Your task to perform on an android device: empty trash in google photos Image 0: 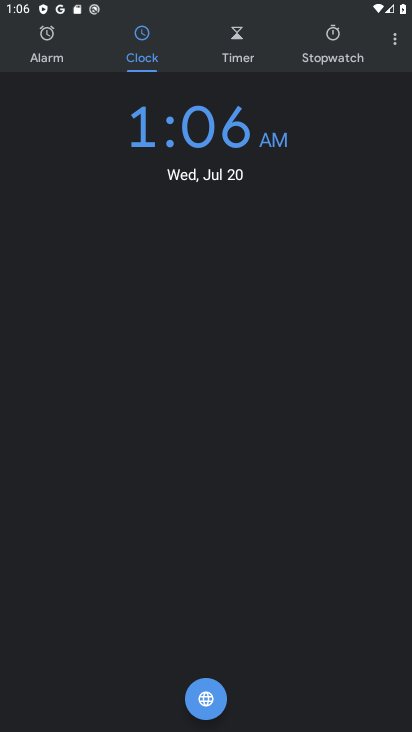
Step 0: press home button
Your task to perform on an android device: empty trash in google photos Image 1: 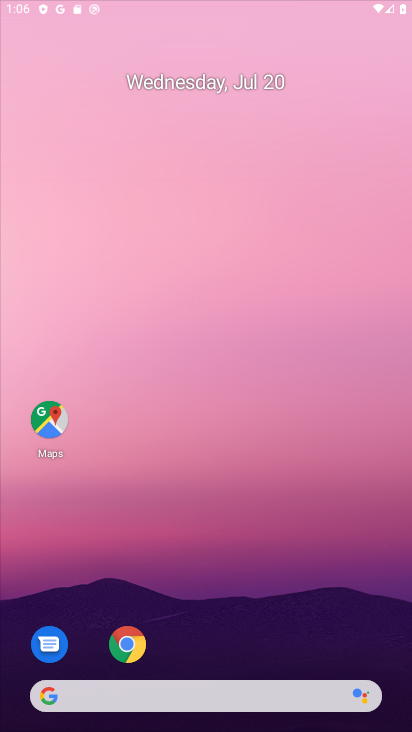
Step 1: drag from (214, 571) to (243, 2)
Your task to perform on an android device: empty trash in google photos Image 2: 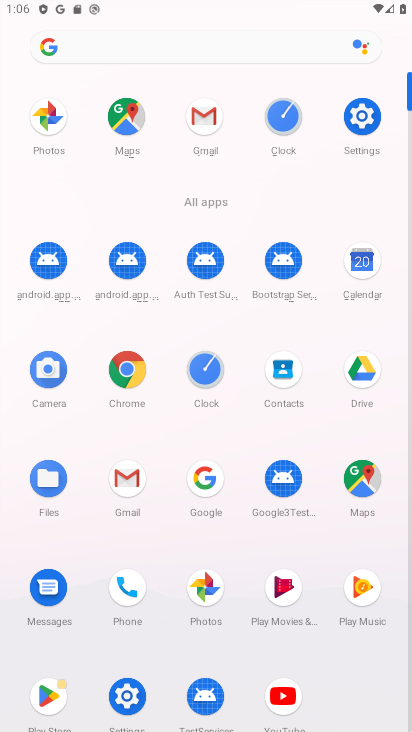
Step 2: click (206, 588)
Your task to perform on an android device: empty trash in google photos Image 3: 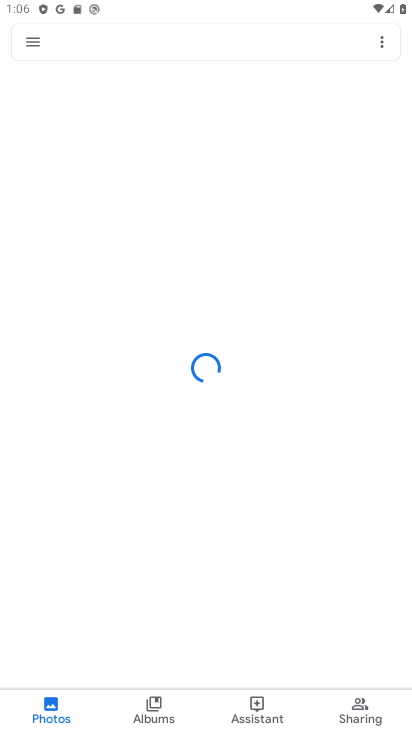
Step 3: click (22, 41)
Your task to perform on an android device: empty trash in google photos Image 4: 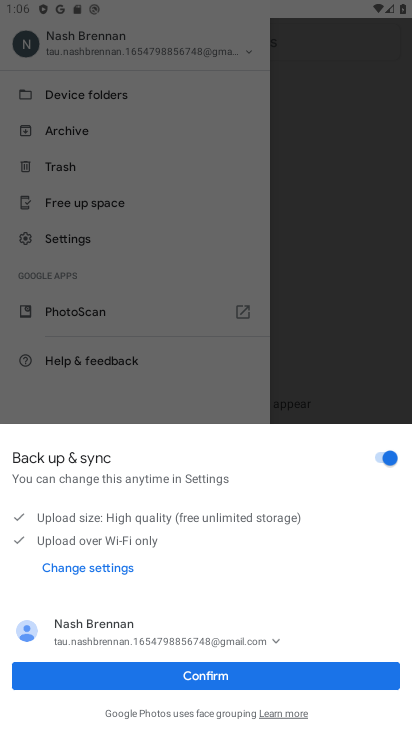
Step 4: click (363, 303)
Your task to perform on an android device: empty trash in google photos Image 5: 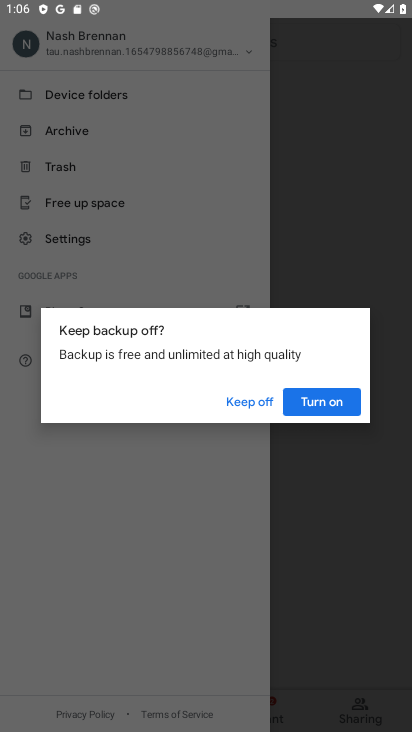
Step 5: click (316, 407)
Your task to perform on an android device: empty trash in google photos Image 6: 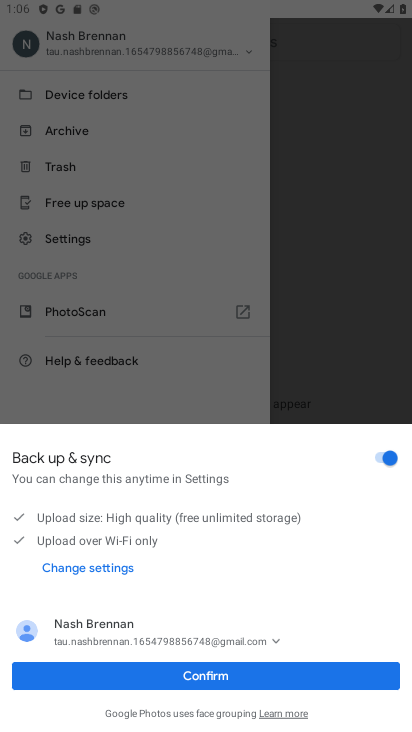
Step 6: click (74, 164)
Your task to perform on an android device: empty trash in google photos Image 7: 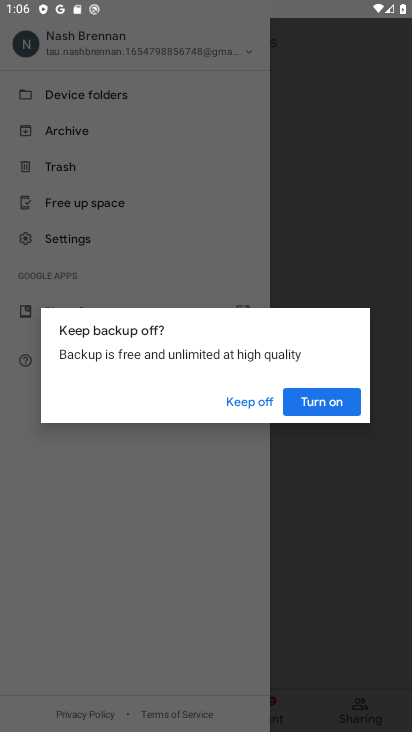
Step 7: click (317, 402)
Your task to perform on an android device: empty trash in google photos Image 8: 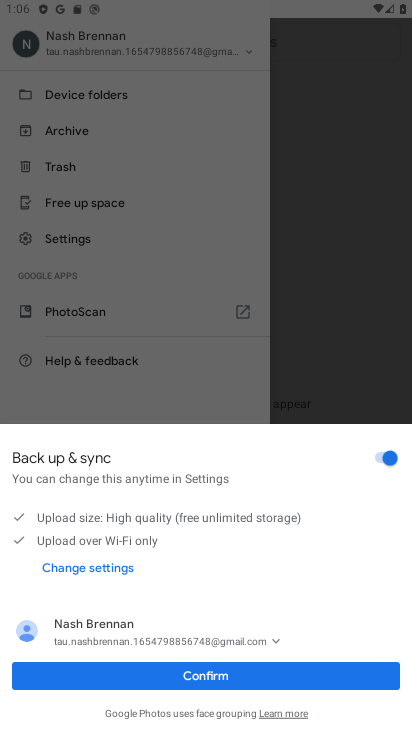
Step 8: click (244, 681)
Your task to perform on an android device: empty trash in google photos Image 9: 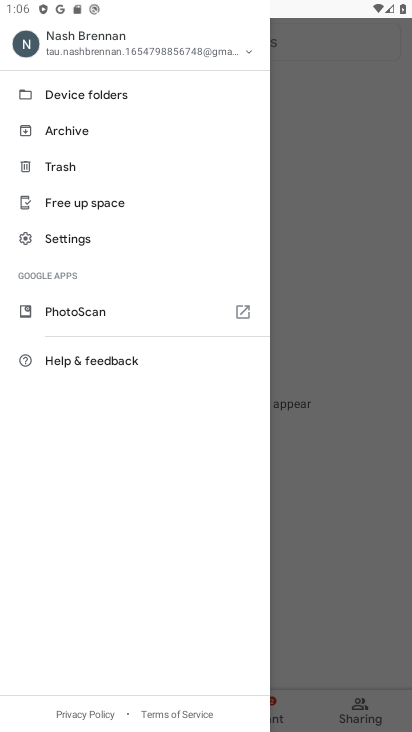
Step 9: click (77, 163)
Your task to perform on an android device: empty trash in google photos Image 10: 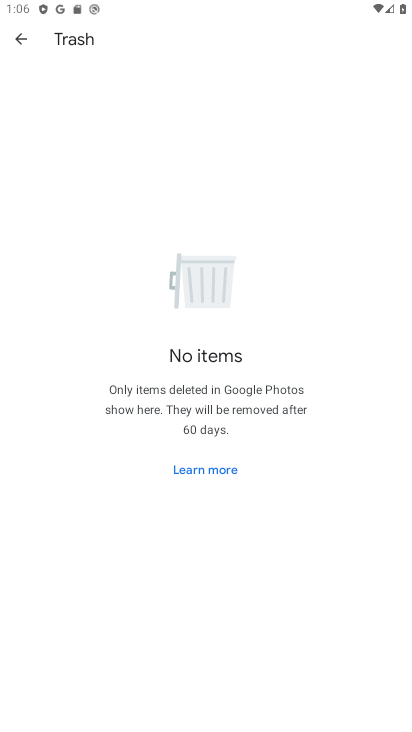
Step 10: task complete